Your task to perform on an android device: Open Chrome and go to the settings page Image 0: 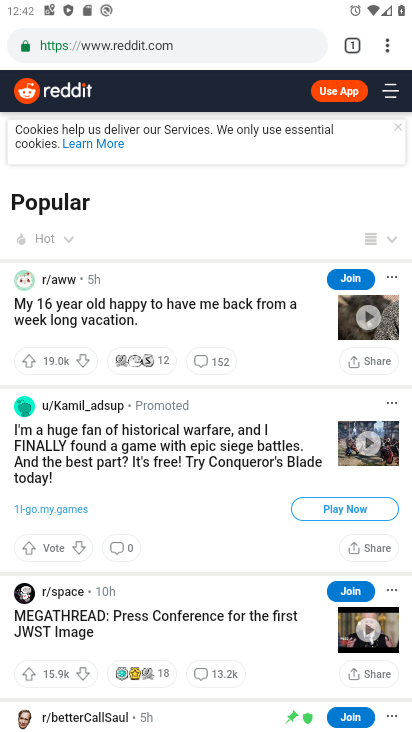
Step 0: press home button
Your task to perform on an android device: Open Chrome and go to the settings page Image 1: 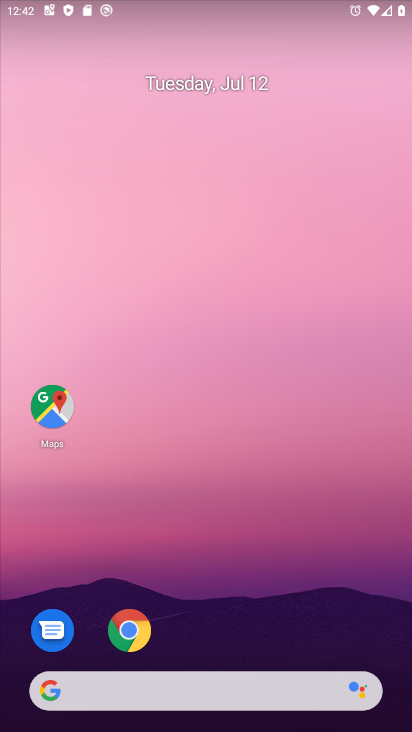
Step 1: click (132, 629)
Your task to perform on an android device: Open Chrome and go to the settings page Image 2: 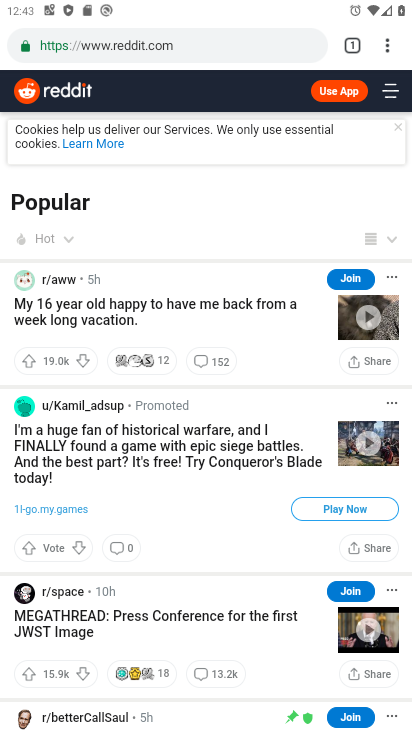
Step 2: click (387, 42)
Your task to perform on an android device: Open Chrome and go to the settings page Image 3: 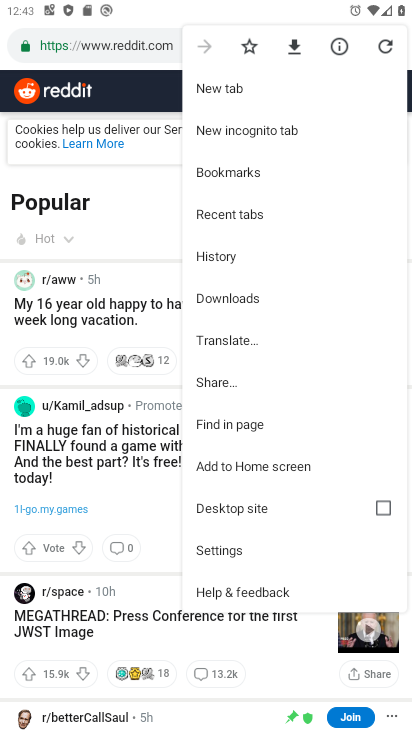
Step 3: click (228, 550)
Your task to perform on an android device: Open Chrome and go to the settings page Image 4: 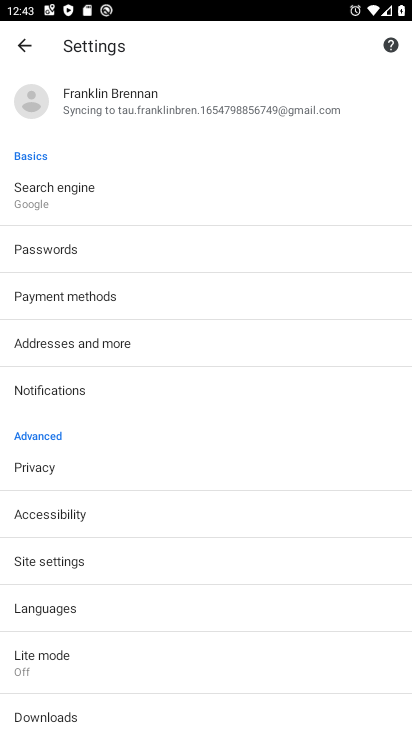
Step 4: task complete